Your task to perform on an android device: Search for Mexican restaurants on Maps Image 0: 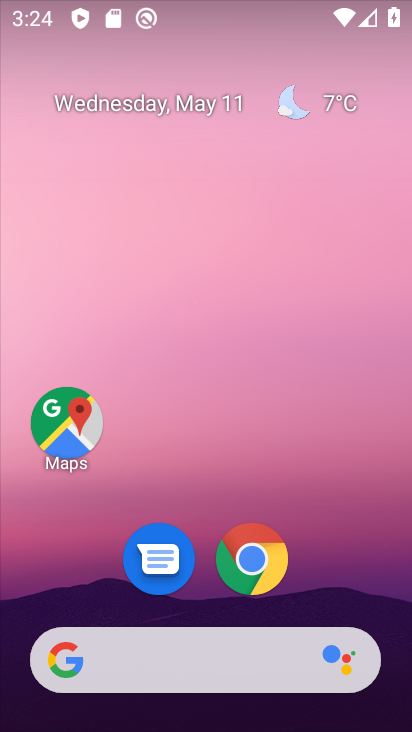
Step 0: click (79, 413)
Your task to perform on an android device: Search for Mexican restaurants on Maps Image 1: 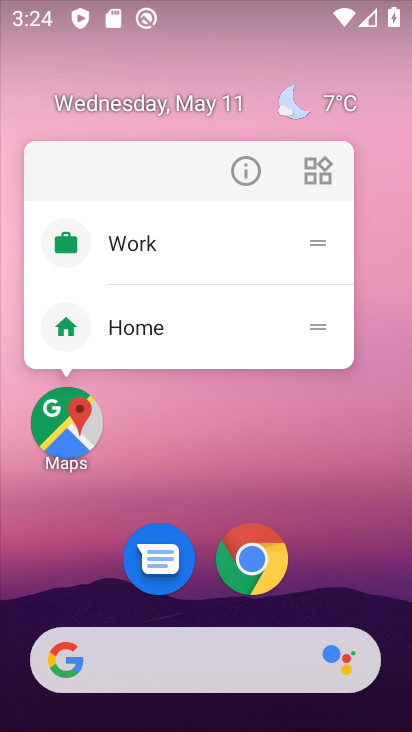
Step 1: click (65, 443)
Your task to perform on an android device: Search for Mexican restaurants on Maps Image 2: 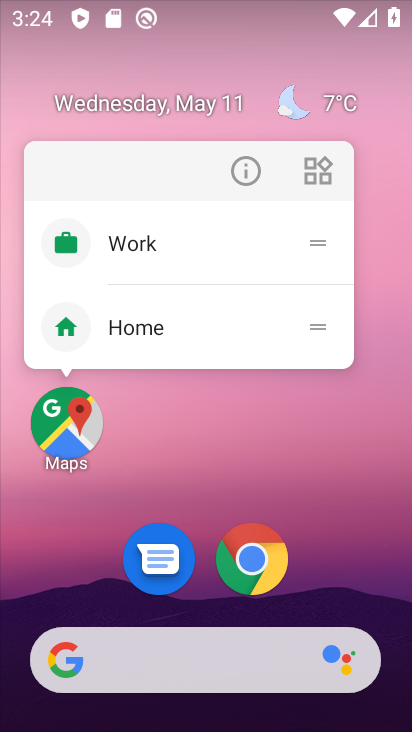
Step 2: click (63, 414)
Your task to perform on an android device: Search for Mexican restaurants on Maps Image 3: 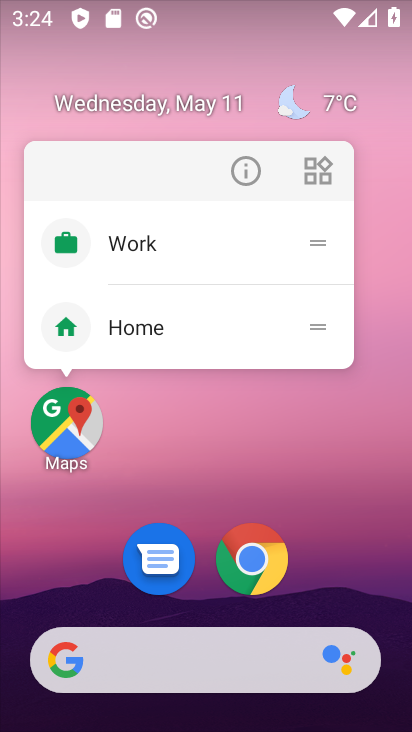
Step 3: click (66, 421)
Your task to perform on an android device: Search for Mexican restaurants on Maps Image 4: 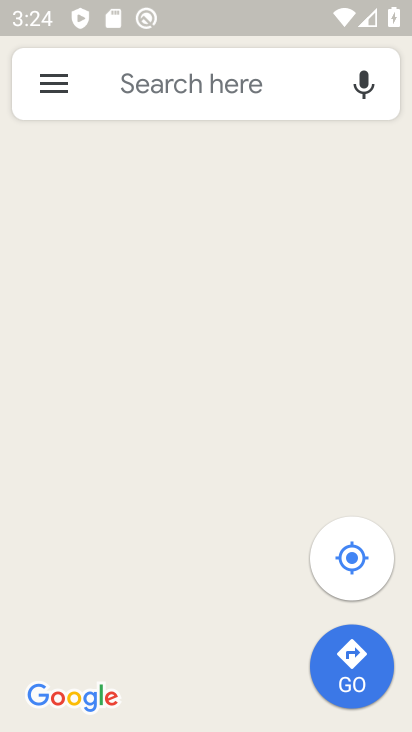
Step 4: click (132, 84)
Your task to perform on an android device: Search for Mexican restaurants on Maps Image 5: 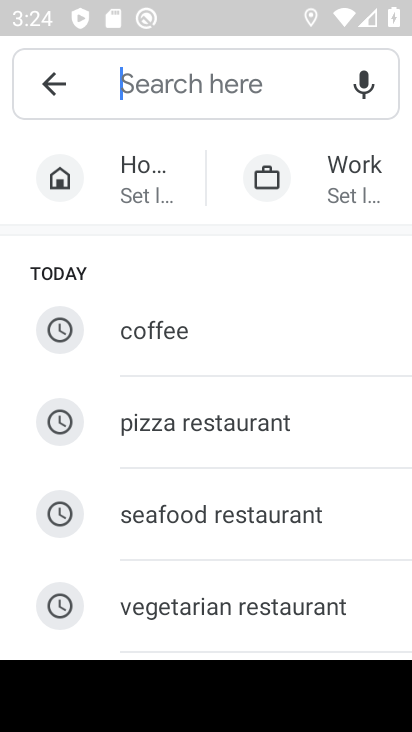
Step 5: type "mexican restaurants"
Your task to perform on an android device: Search for Mexican restaurants on Maps Image 6: 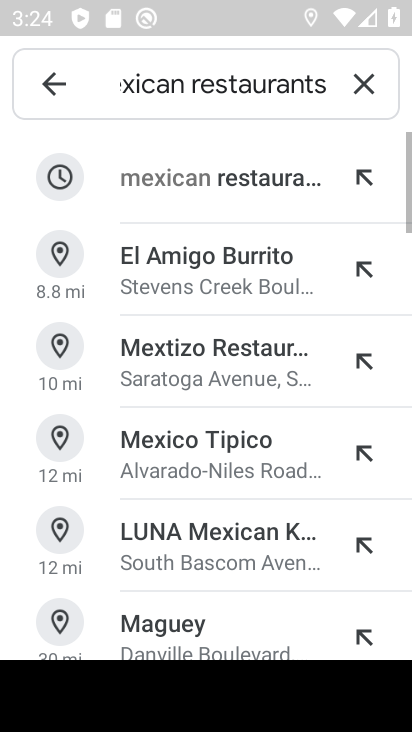
Step 6: click (120, 183)
Your task to perform on an android device: Search for Mexican restaurants on Maps Image 7: 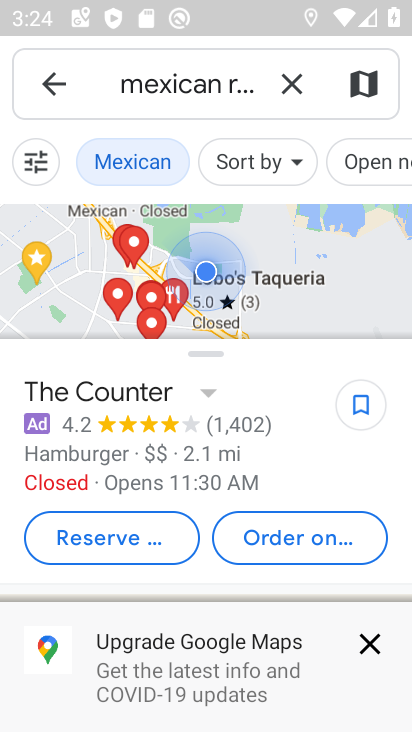
Step 7: task complete